Your task to perform on an android device: What's on my calendar today? Image 0: 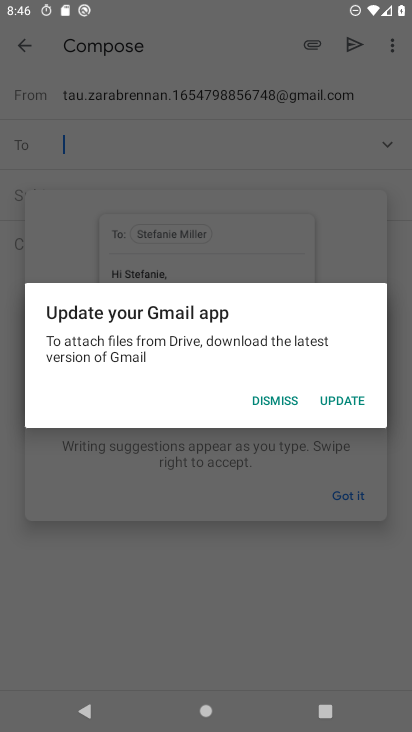
Step 0: press home button
Your task to perform on an android device: What's on my calendar today? Image 1: 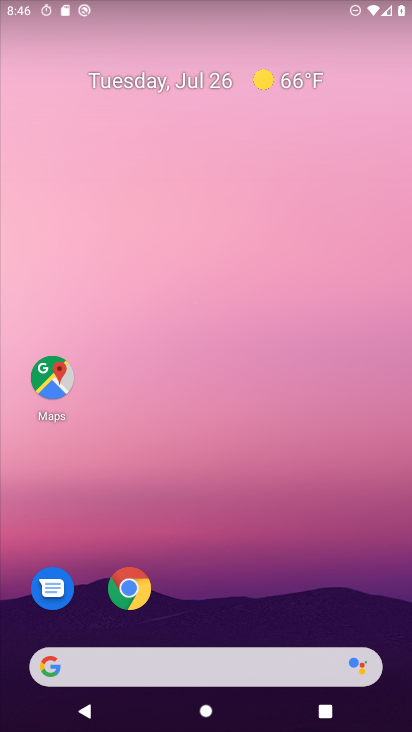
Step 1: drag from (230, 663) to (230, 252)
Your task to perform on an android device: What's on my calendar today? Image 2: 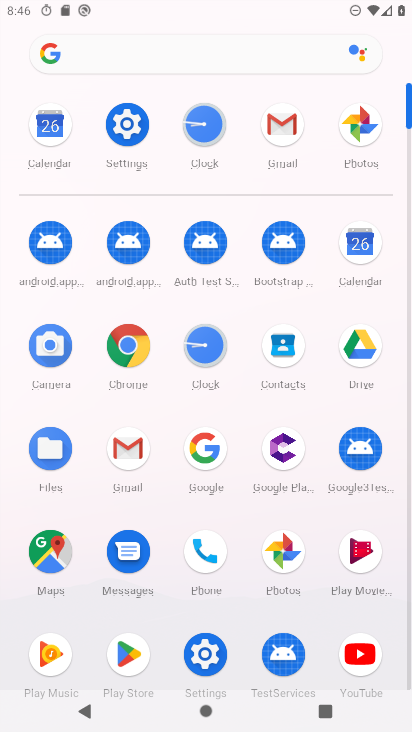
Step 2: click (361, 247)
Your task to perform on an android device: What's on my calendar today? Image 3: 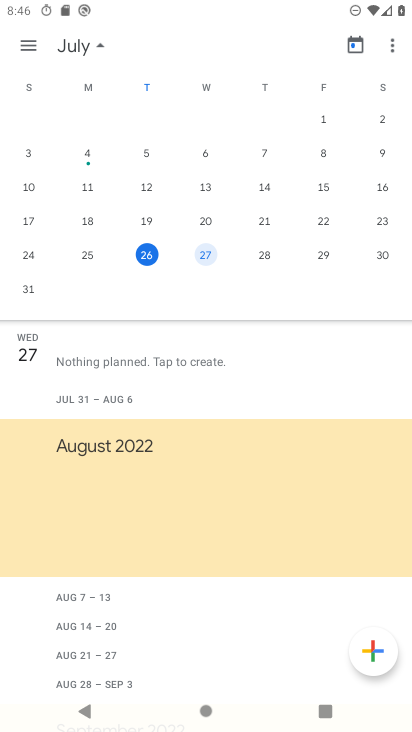
Step 3: click (146, 253)
Your task to perform on an android device: What's on my calendar today? Image 4: 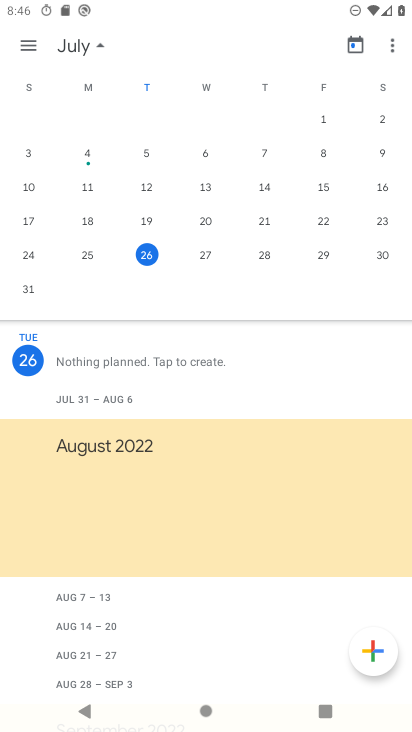
Step 4: task complete